Your task to perform on an android device: Turn off the flashlight Image 0: 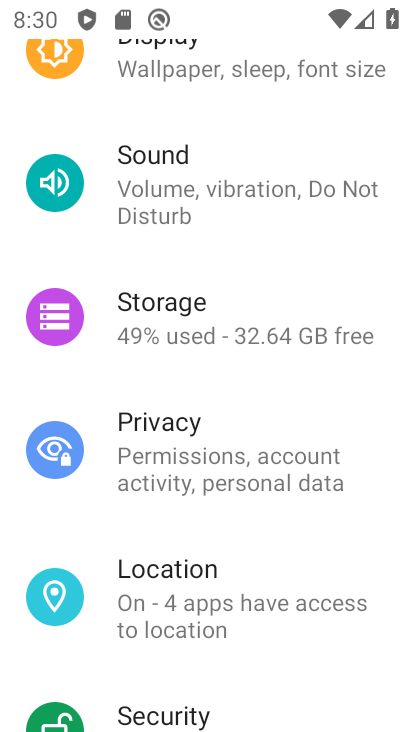
Step 0: click (291, 572)
Your task to perform on an android device: Turn off the flashlight Image 1: 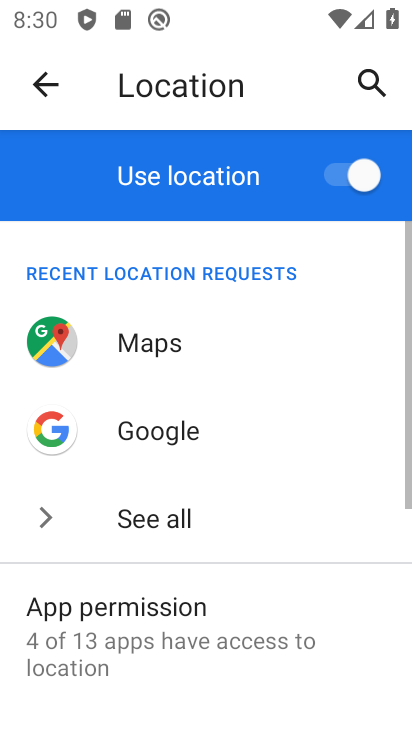
Step 1: task complete